Your task to perform on an android device: add a contact Image 0: 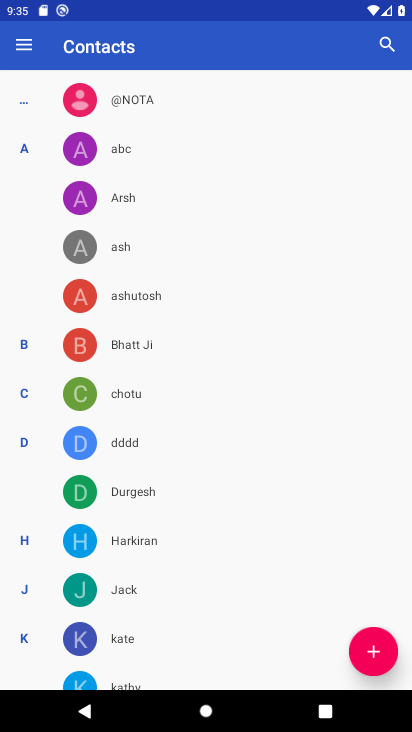
Step 0: click (374, 650)
Your task to perform on an android device: add a contact Image 1: 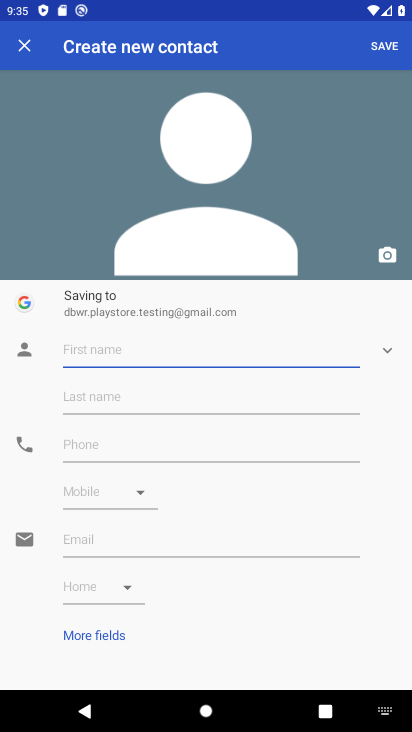
Step 1: type "amber cris"
Your task to perform on an android device: add a contact Image 2: 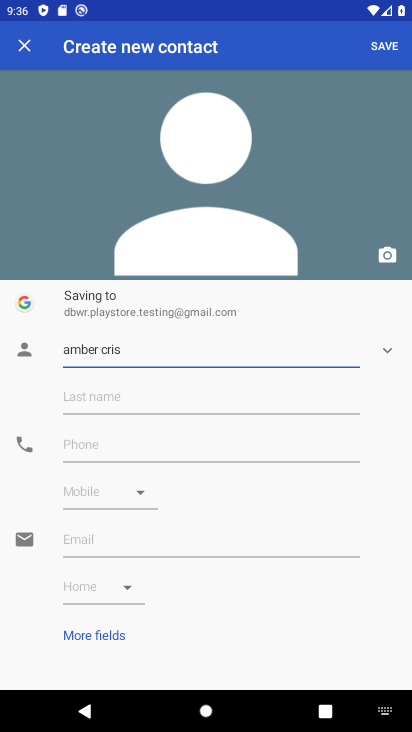
Step 2: click (96, 449)
Your task to perform on an android device: add a contact Image 3: 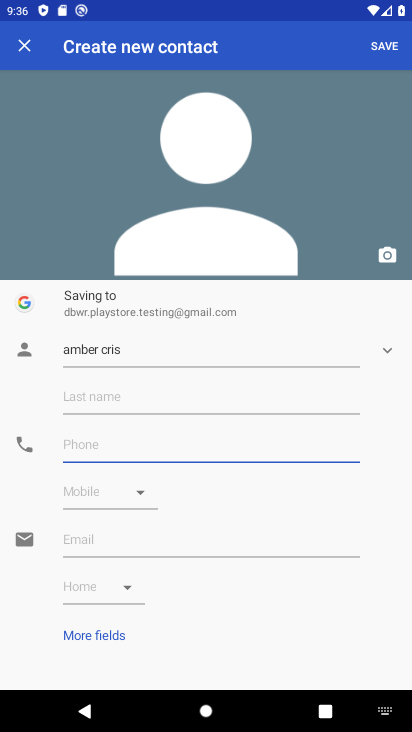
Step 3: type "233255212"
Your task to perform on an android device: add a contact Image 4: 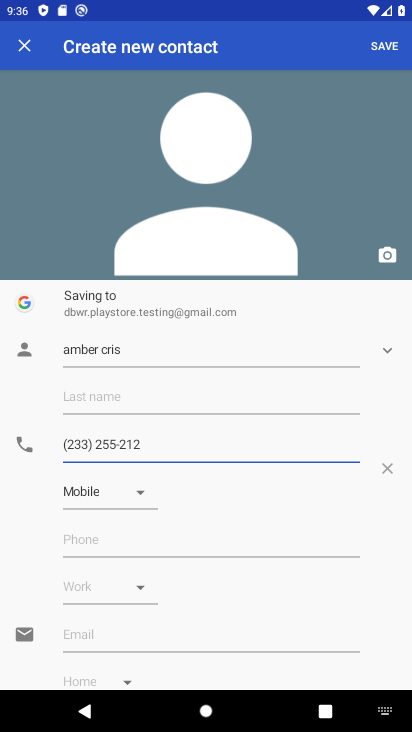
Step 4: click (394, 41)
Your task to perform on an android device: add a contact Image 5: 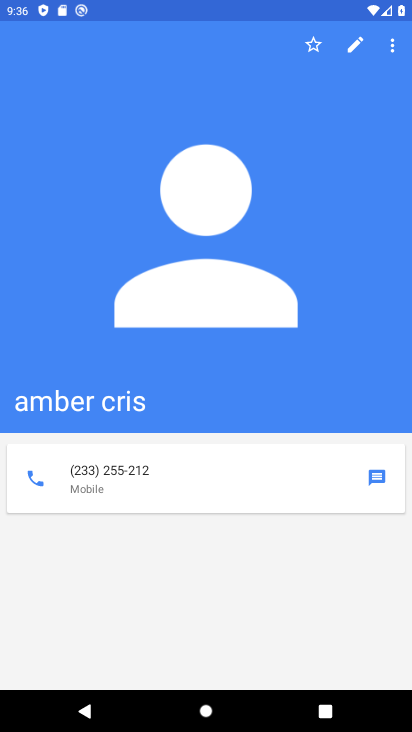
Step 5: task complete